Your task to perform on an android device: Go to Google Image 0: 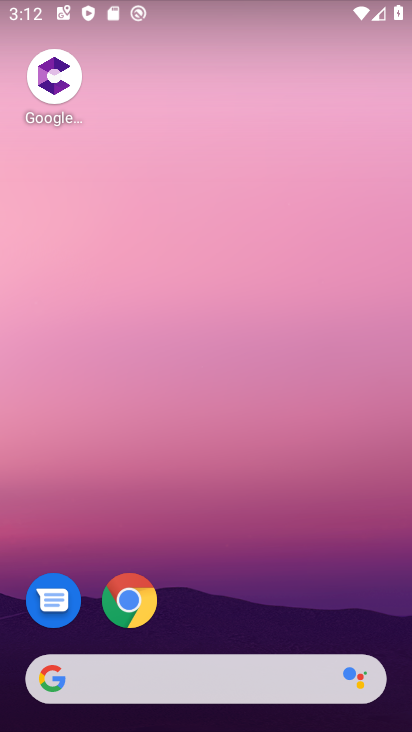
Step 0: drag from (253, 631) to (205, 402)
Your task to perform on an android device: Go to Google Image 1: 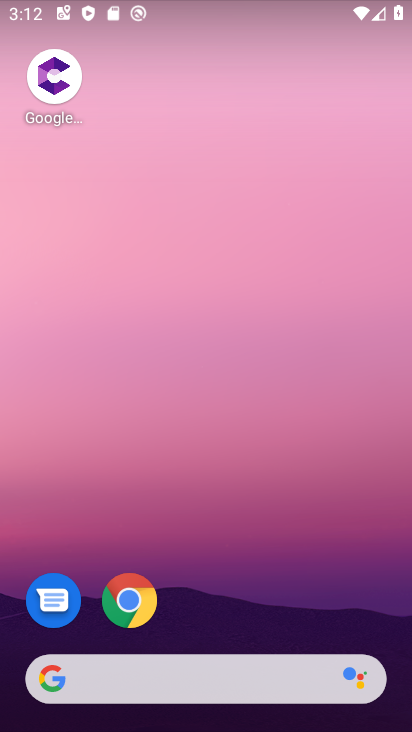
Step 1: drag from (203, 629) to (121, 118)
Your task to perform on an android device: Go to Google Image 2: 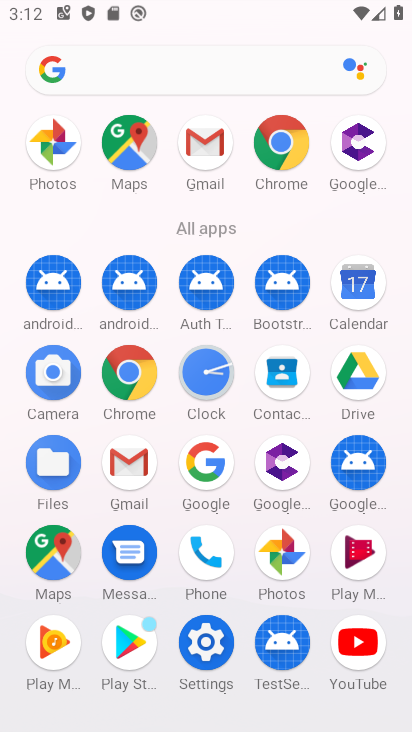
Step 2: click (214, 464)
Your task to perform on an android device: Go to Google Image 3: 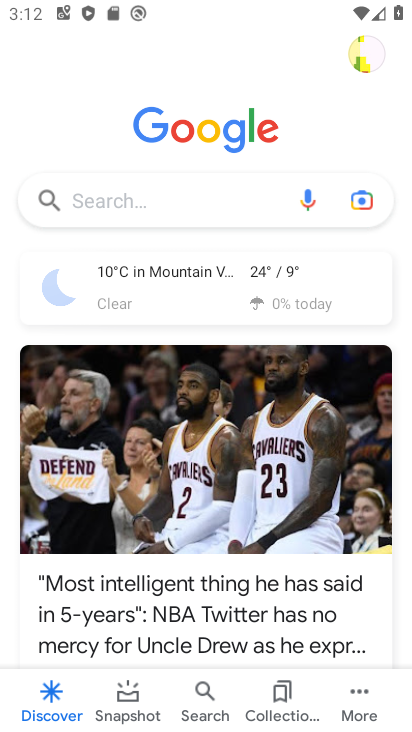
Step 3: task complete